Your task to perform on an android device: turn on translation in the chrome app Image 0: 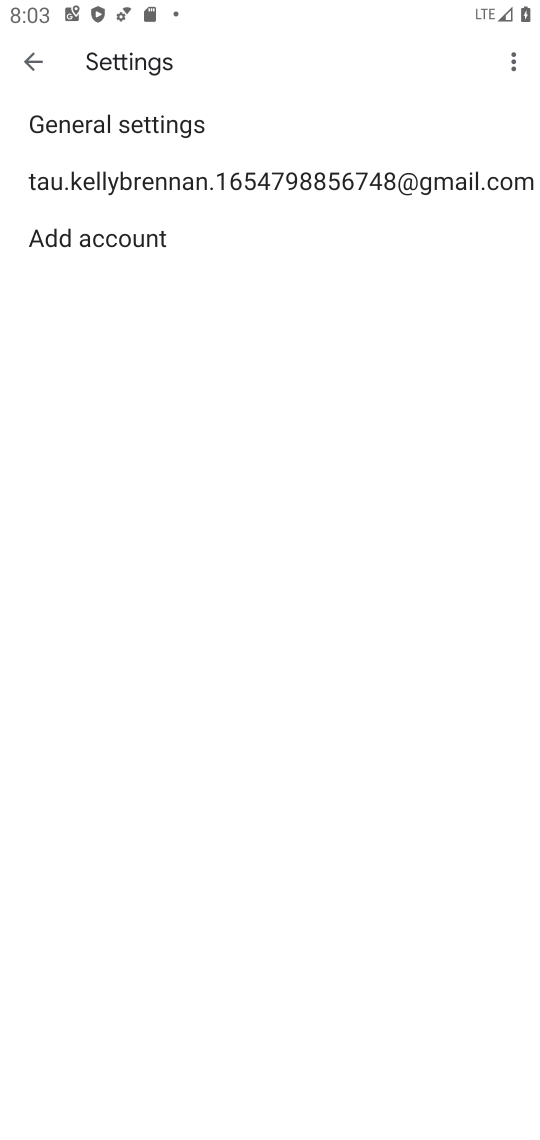
Step 0: press home button
Your task to perform on an android device: turn on translation in the chrome app Image 1: 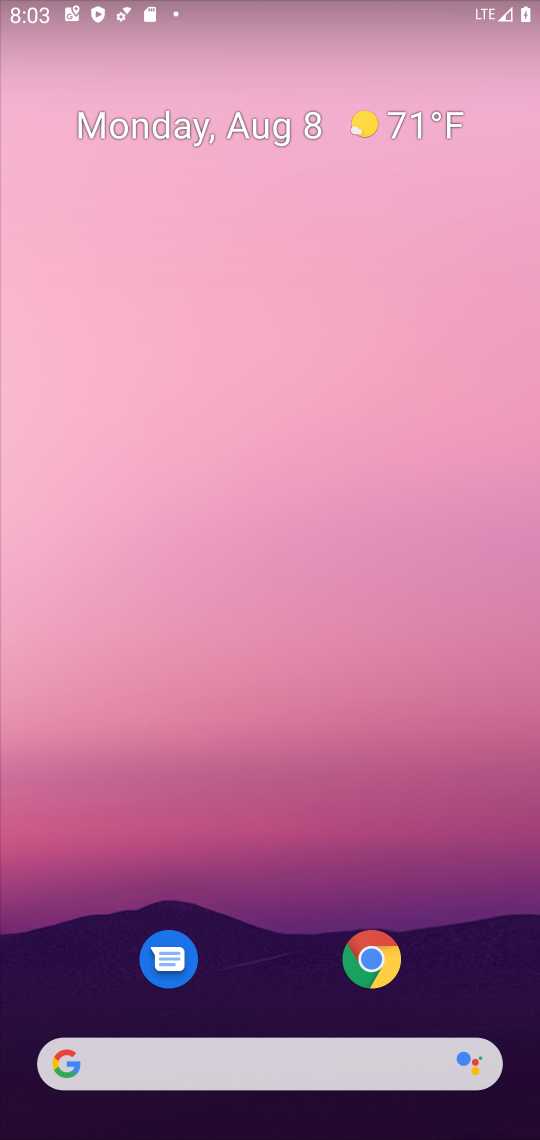
Step 1: drag from (514, 998) to (198, 14)
Your task to perform on an android device: turn on translation in the chrome app Image 2: 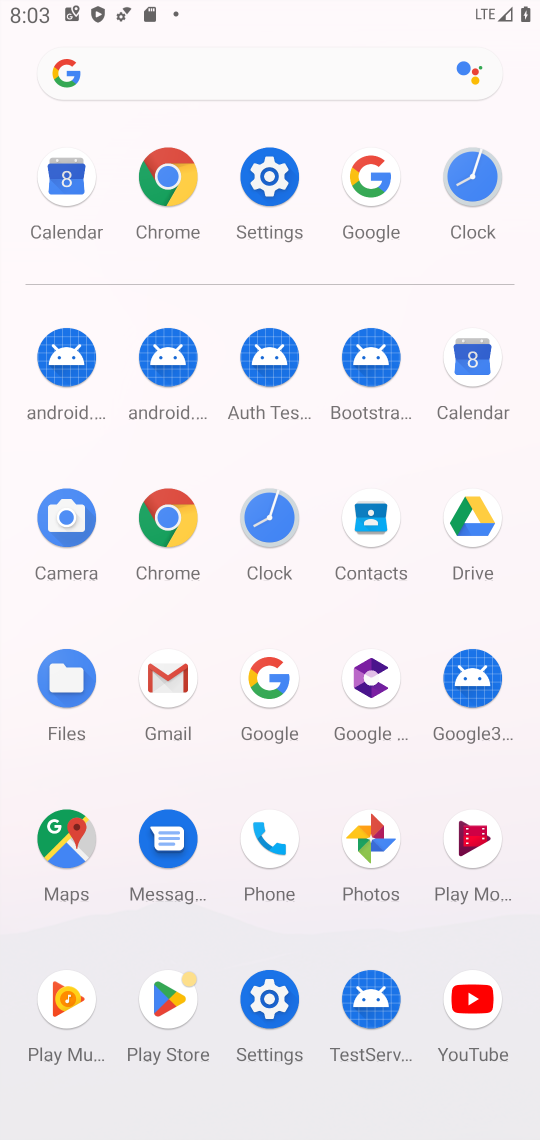
Step 2: click (151, 204)
Your task to perform on an android device: turn on translation in the chrome app Image 3: 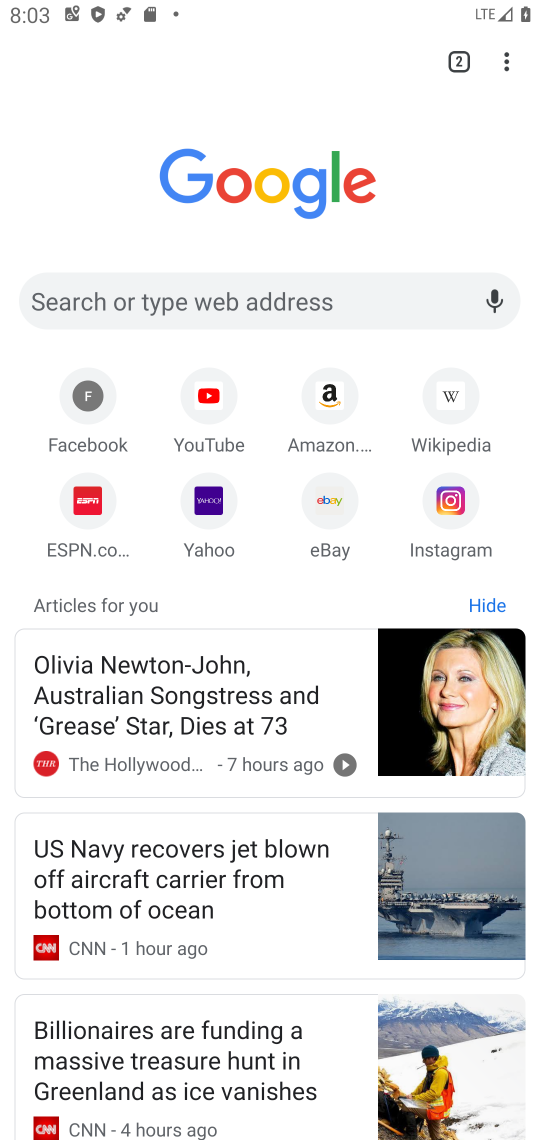
Step 3: click (513, 66)
Your task to perform on an android device: turn on translation in the chrome app Image 4: 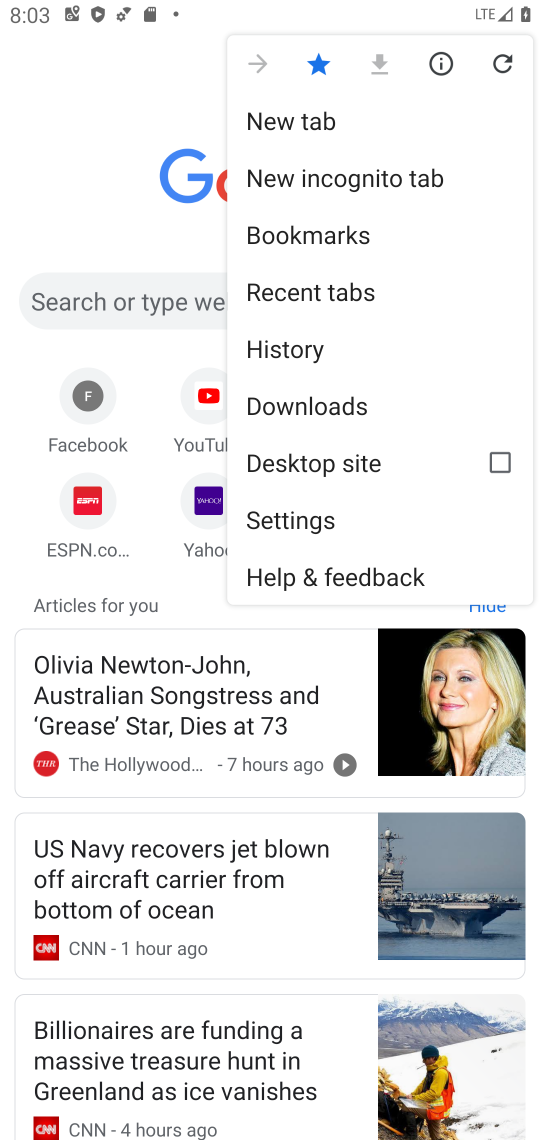
Step 4: click (302, 515)
Your task to perform on an android device: turn on translation in the chrome app Image 5: 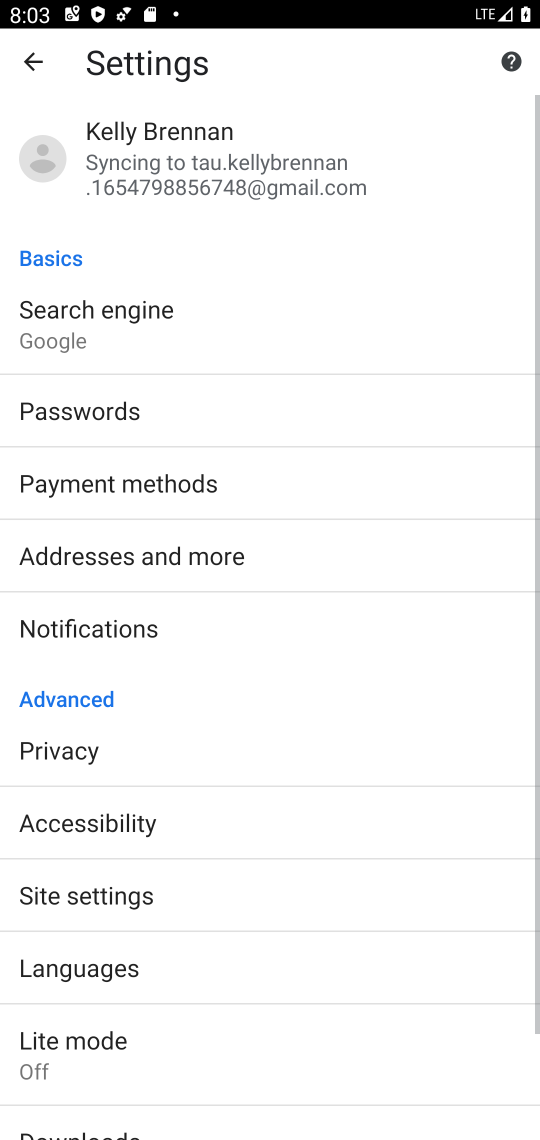
Step 5: drag from (154, 1033) to (138, 398)
Your task to perform on an android device: turn on translation in the chrome app Image 6: 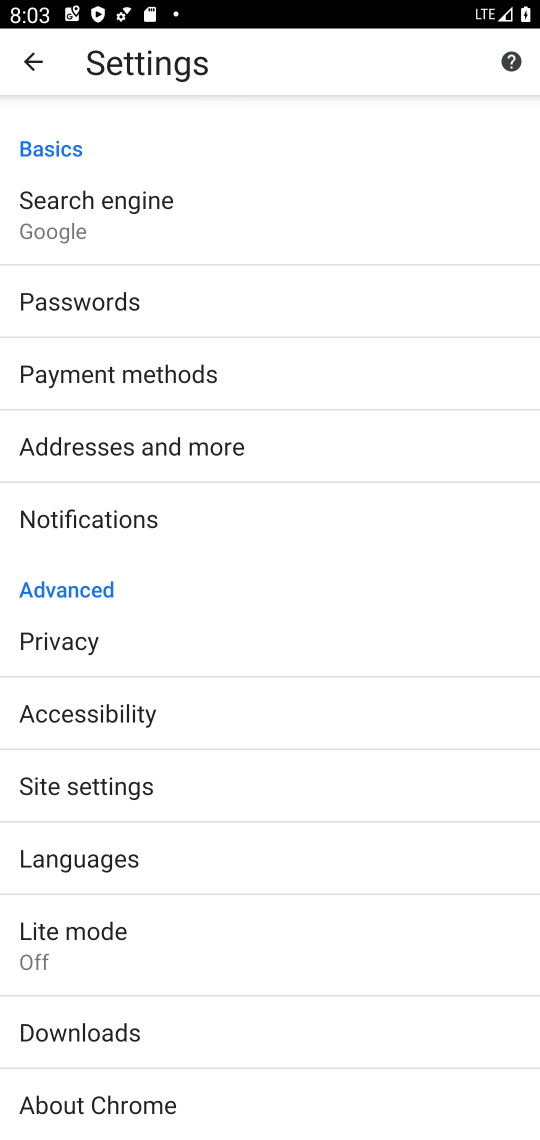
Step 6: click (96, 847)
Your task to perform on an android device: turn on translation in the chrome app Image 7: 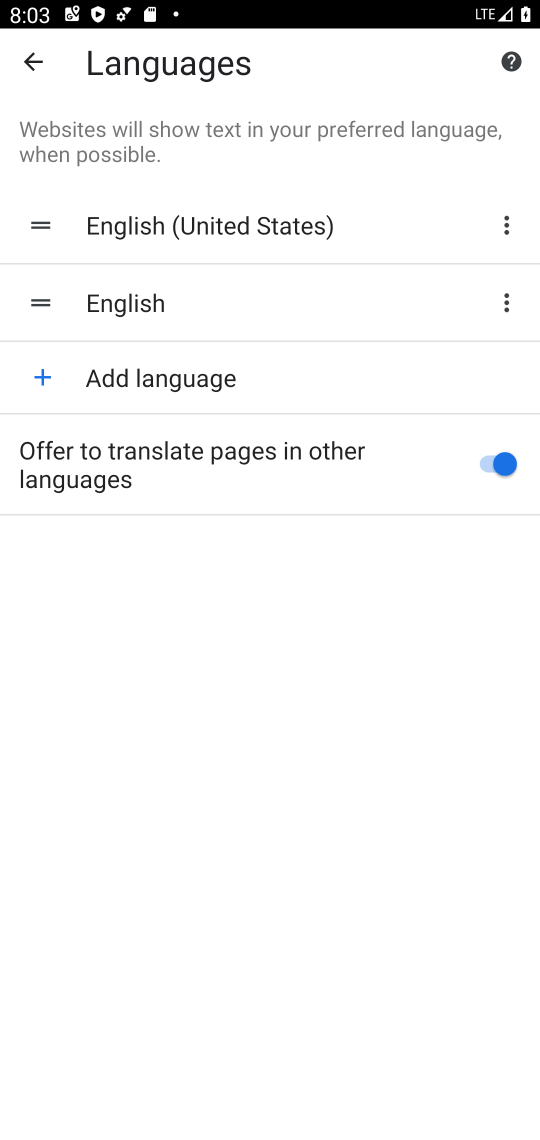
Step 7: task complete